Your task to perform on an android device: Look up the best rated headphones on Walmart. Image 0: 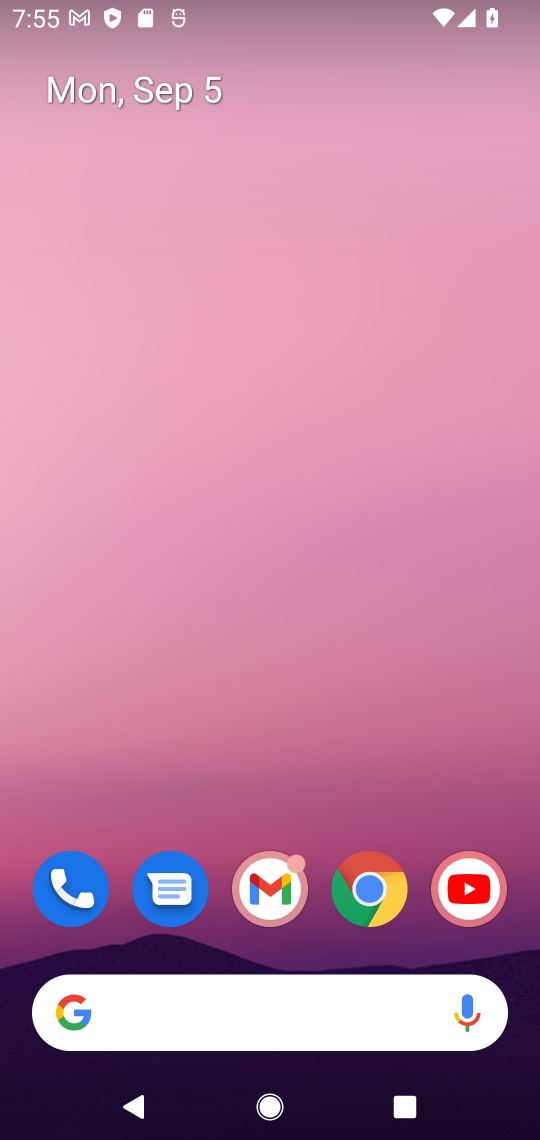
Step 0: click (196, 1012)
Your task to perform on an android device: Look up the best rated headphones on Walmart. Image 1: 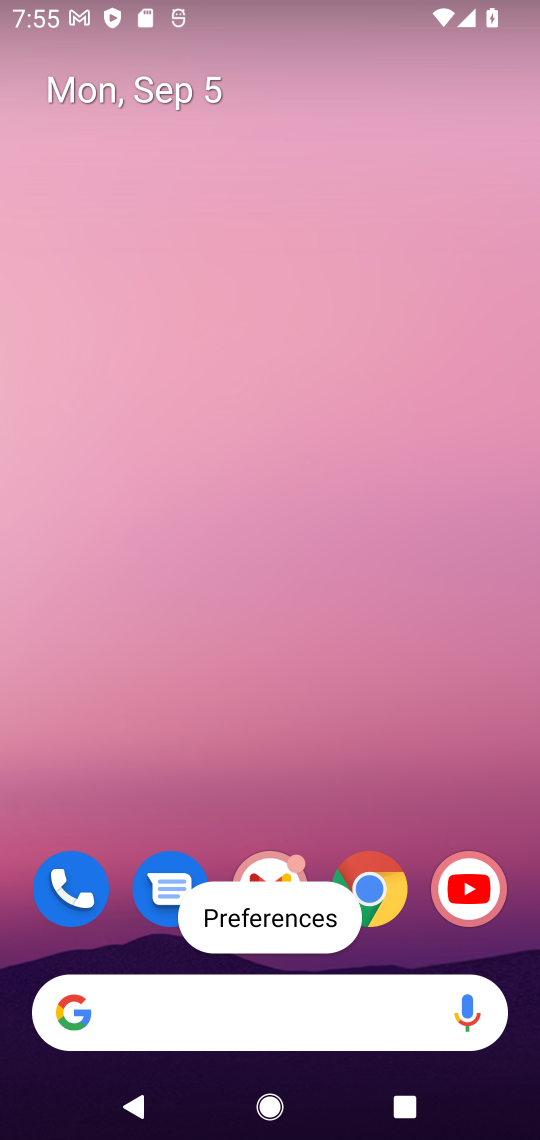
Step 1: click (196, 1012)
Your task to perform on an android device: Look up the best rated headphones on Walmart. Image 2: 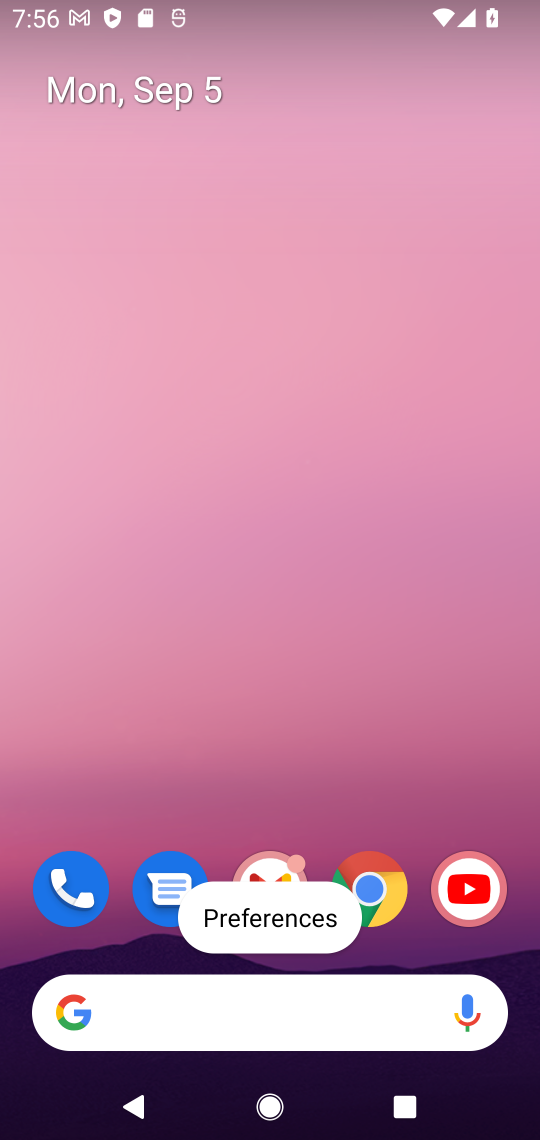
Step 2: click (196, 1012)
Your task to perform on an android device: Look up the best rated headphones on Walmart. Image 3: 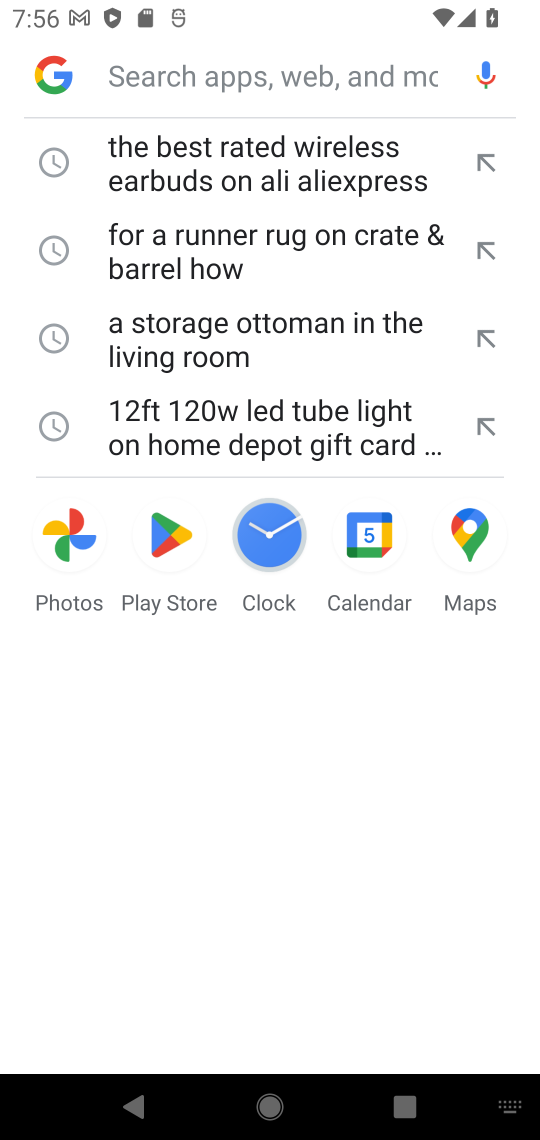
Step 3: type "the best rated headphones on Walmart."
Your task to perform on an android device: Look up the best rated headphones on Walmart. Image 4: 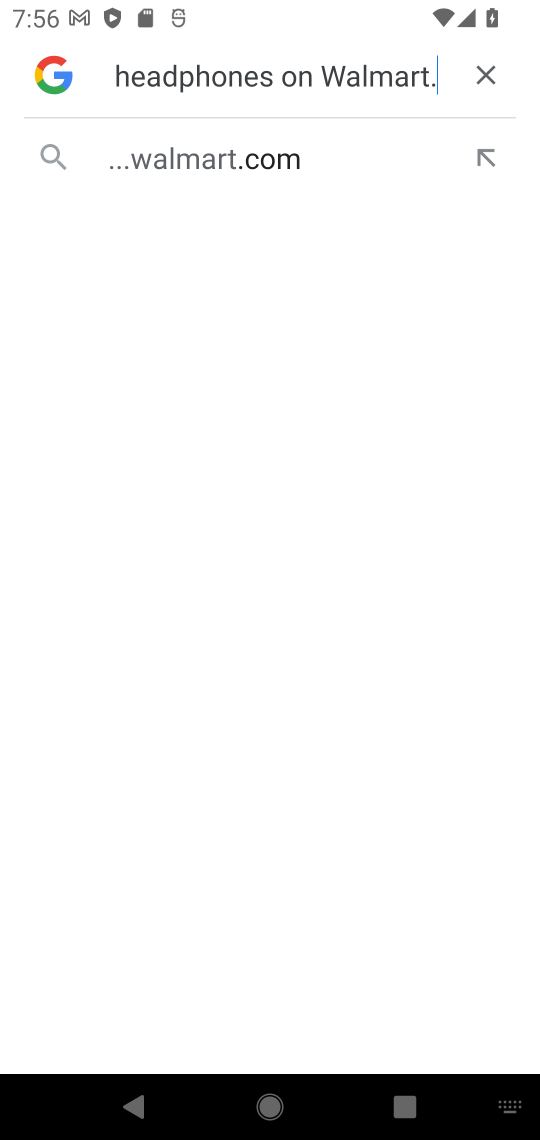
Step 4: click (249, 167)
Your task to perform on an android device: Look up the best rated headphones on Walmart. Image 5: 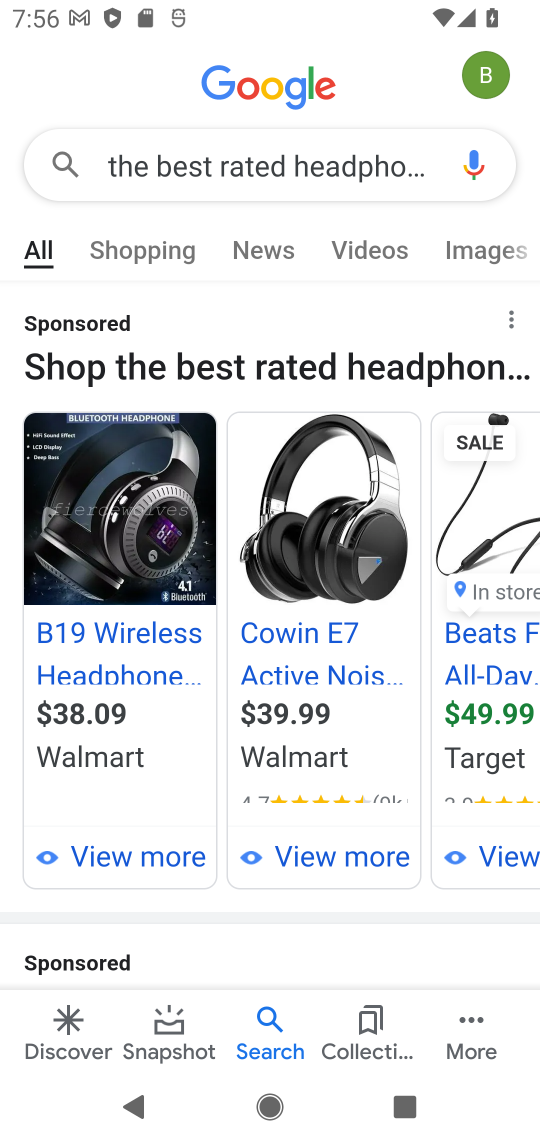
Step 5: task complete